Your task to perform on an android device: change the clock display to digital Image 0: 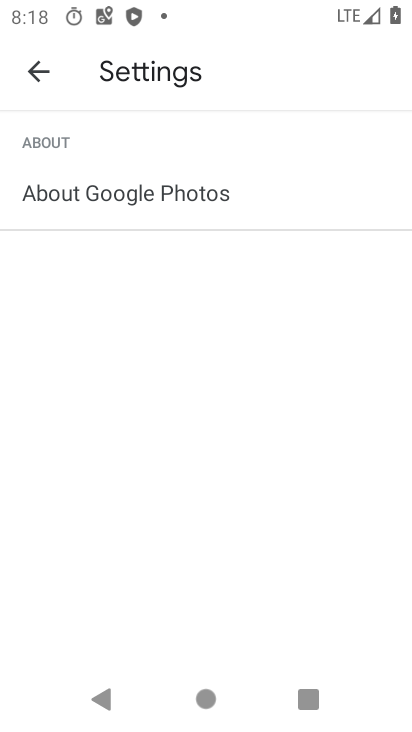
Step 0: press home button
Your task to perform on an android device: change the clock display to digital Image 1: 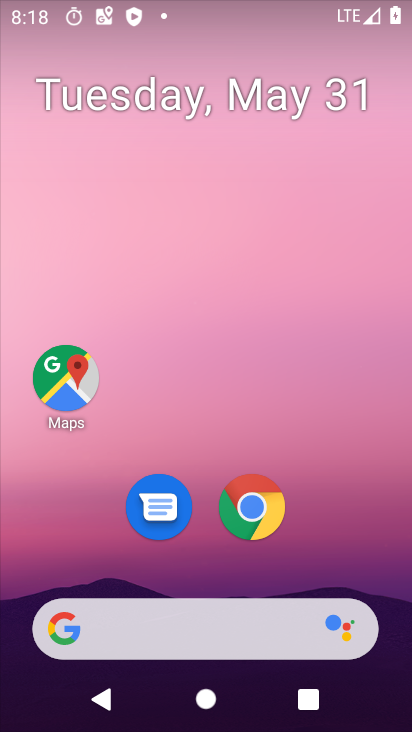
Step 1: drag from (24, 626) to (224, 290)
Your task to perform on an android device: change the clock display to digital Image 2: 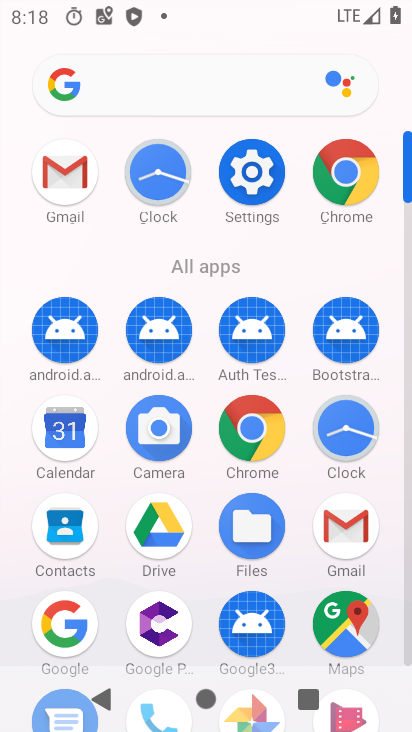
Step 2: click (337, 432)
Your task to perform on an android device: change the clock display to digital Image 3: 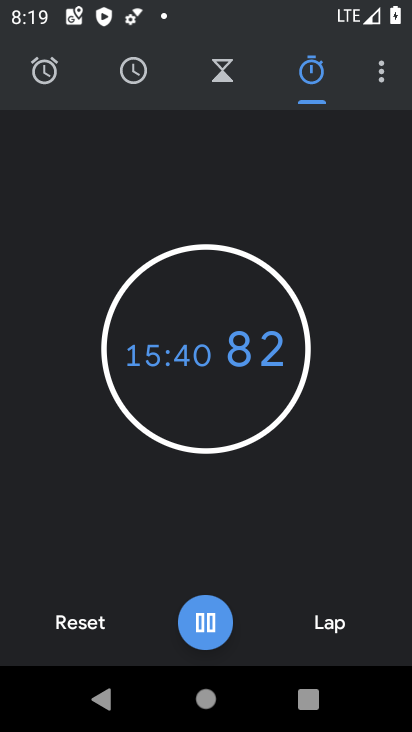
Step 3: click (375, 72)
Your task to perform on an android device: change the clock display to digital Image 4: 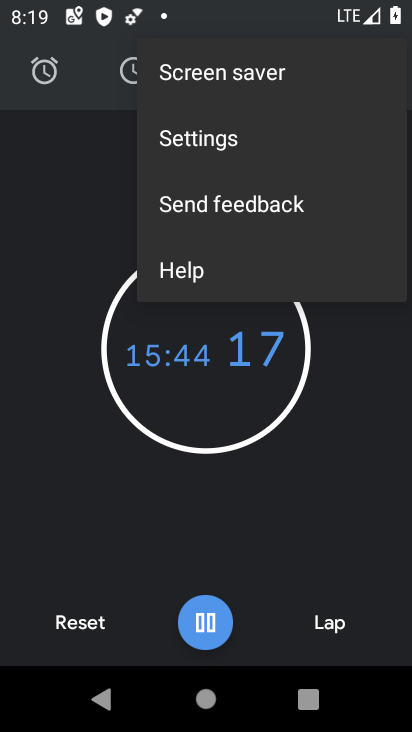
Step 4: click (250, 140)
Your task to perform on an android device: change the clock display to digital Image 5: 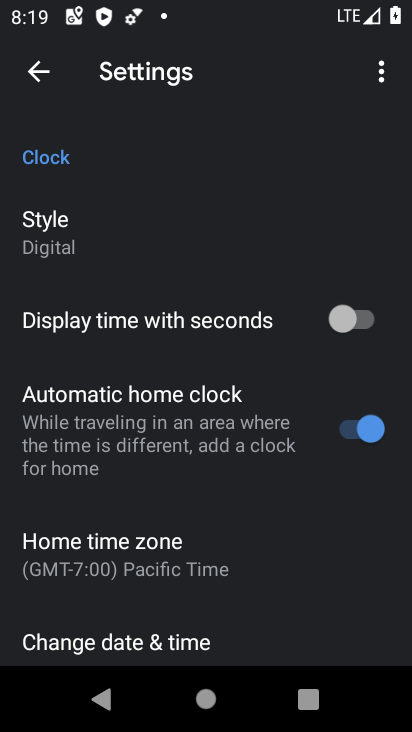
Step 5: click (59, 234)
Your task to perform on an android device: change the clock display to digital Image 6: 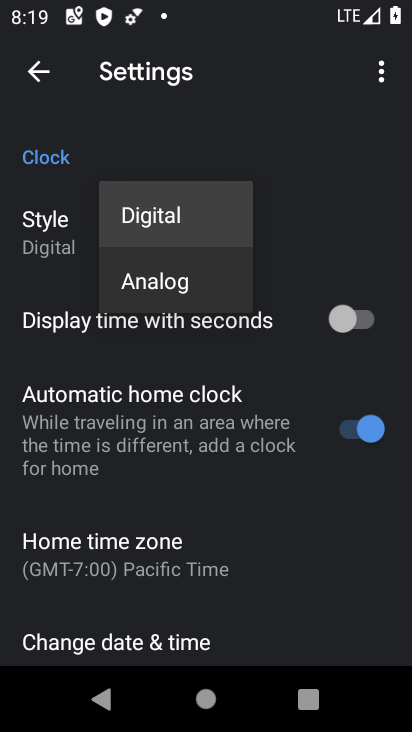
Step 6: click (144, 219)
Your task to perform on an android device: change the clock display to digital Image 7: 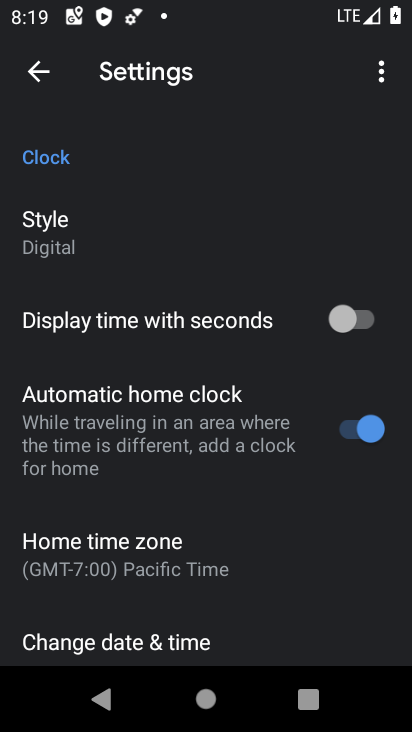
Step 7: task complete